Your task to perform on an android device: open a bookmark in the chrome app Image 0: 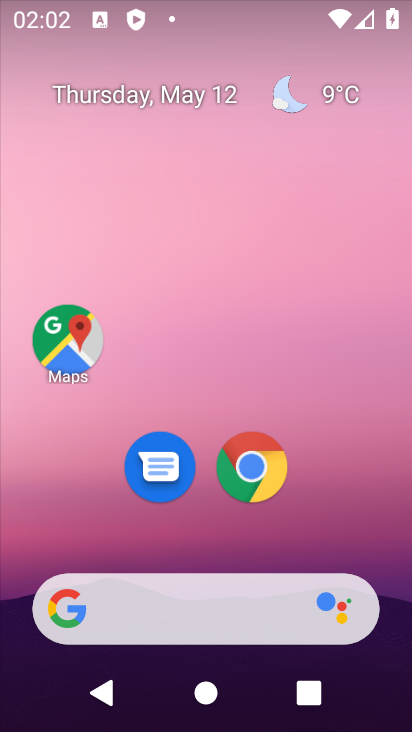
Step 0: click (251, 457)
Your task to perform on an android device: open a bookmark in the chrome app Image 1: 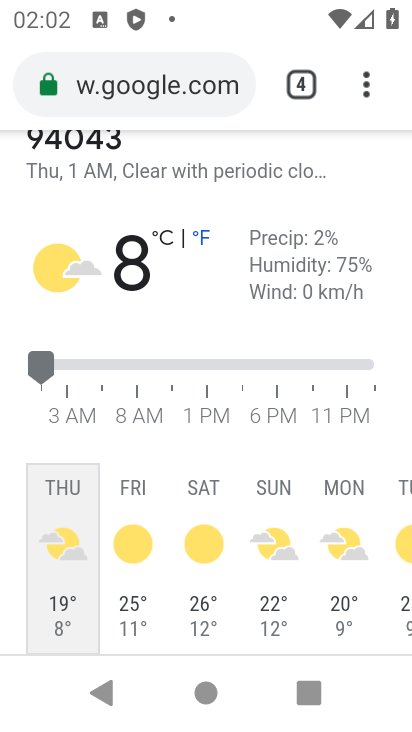
Step 1: click (356, 84)
Your task to perform on an android device: open a bookmark in the chrome app Image 2: 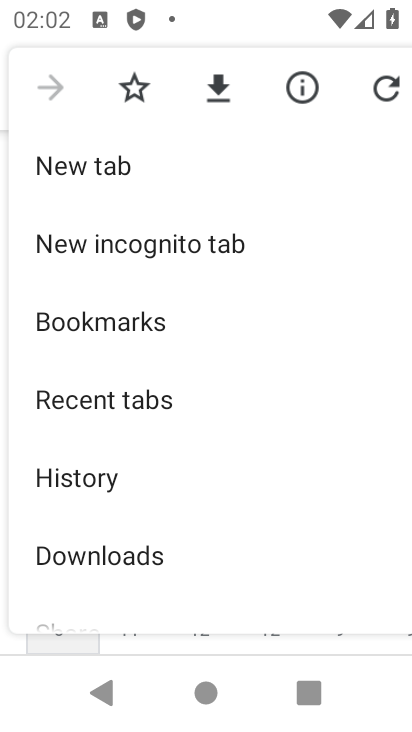
Step 2: click (123, 323)
Your task to perform on an android device: open a bookmark in the chrome app Image 3: 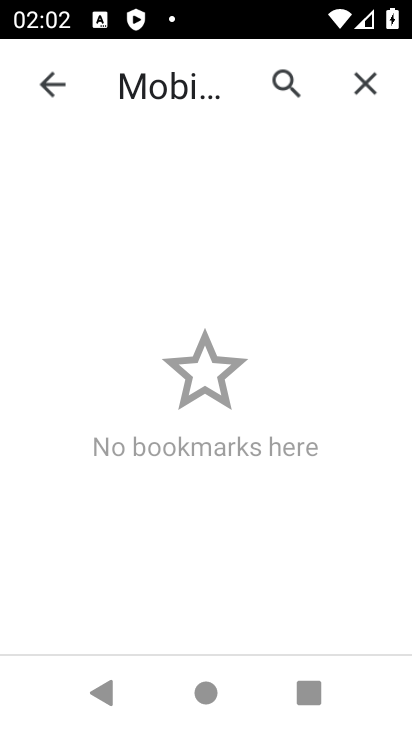
Step 3: task complete